Your task to perform on an android device: Turn off the flashlight Image 0: 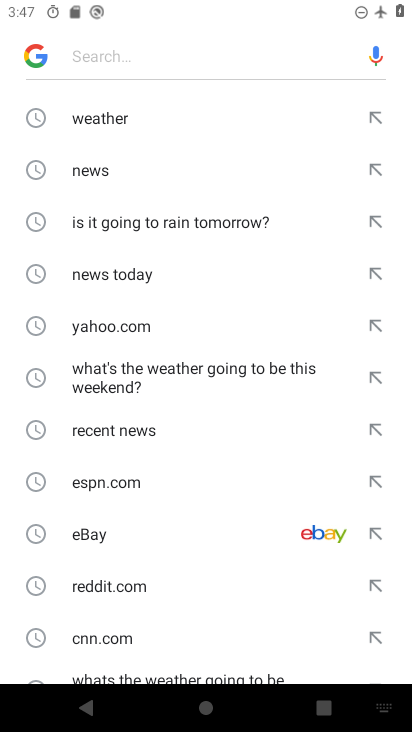
Step 0: press home button
Your task to perform on an android device: Turn off the flashlight Image 1: 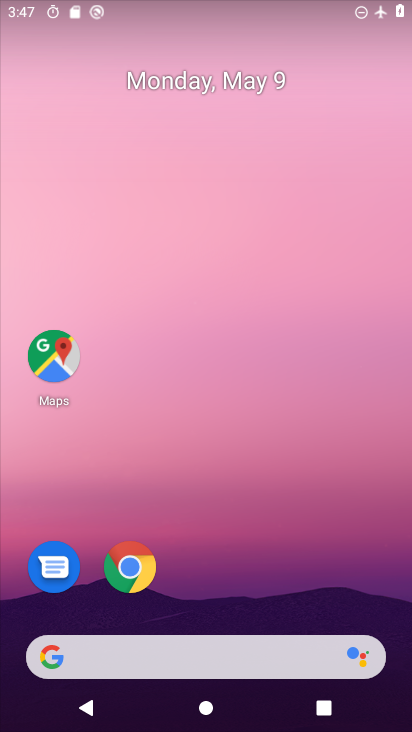
Step 1: drag from (253, 530) to (263, 32)
Your task to perform on an android device: Turn off the flashlight Image 2: 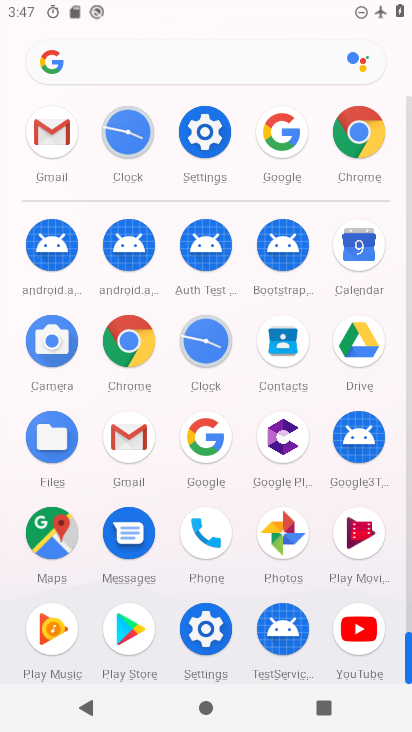
Step 2: click (200, 129)
Your task to perform on an android device: Turn off the flashlight Image 3: 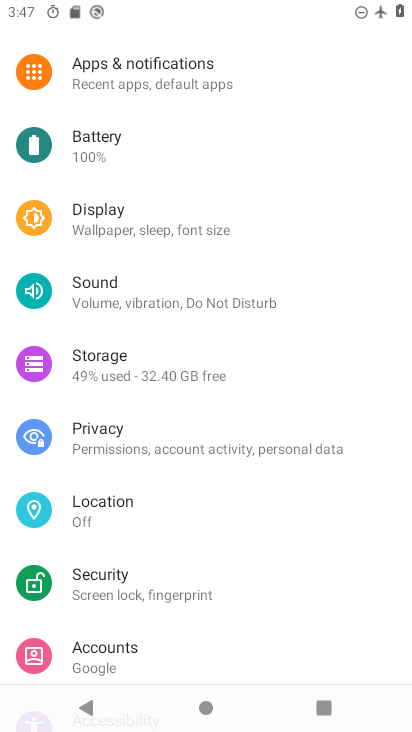
Step 3: click (152, 78)
Your task to perform on an android device: Turn off the flashlight Image 4: 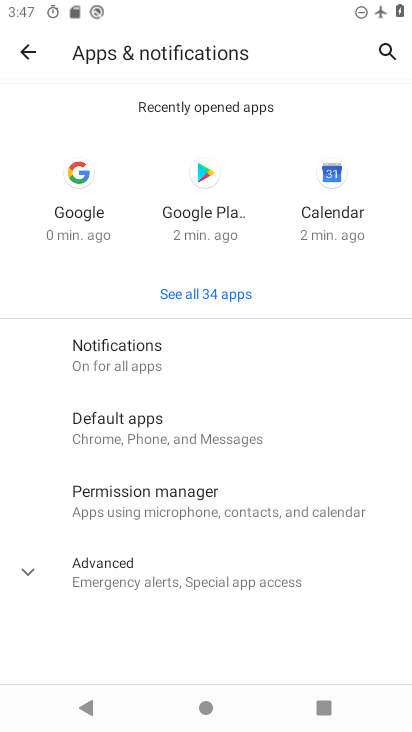
Step 4: click (181, 564)
Your task to perform on an android device: Turn off the flashlight Image 5: 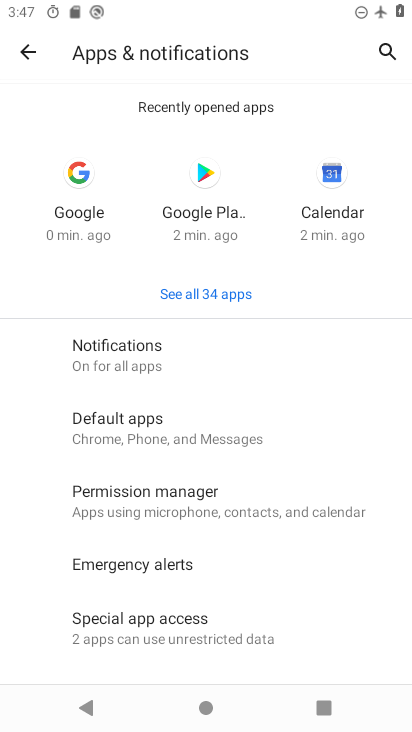
Step 5: drag from (222, 496) to (217, 187)
Your task to perform on an android device: Turn off the flashlight Image 6: 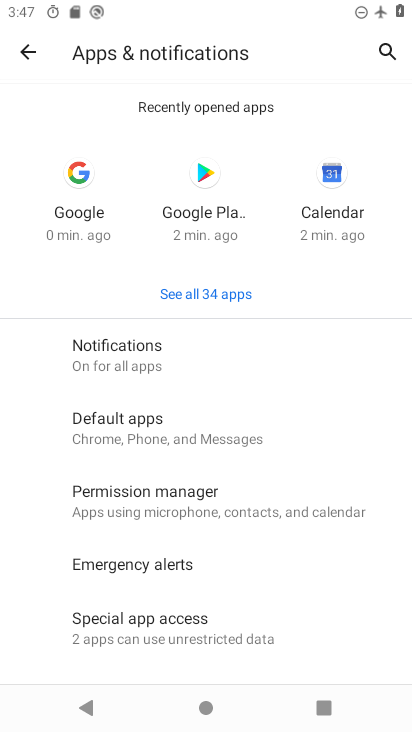
Step 6: click (211, 633)
Your task to perform on an android device: Turn off the flashlight Image 7: 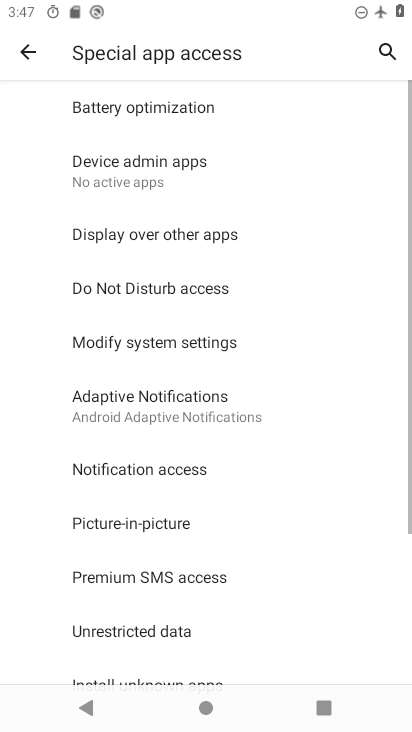
Step 7: task complete